Your task to perform on an android device: delete a single message in the gmail app Image 0: 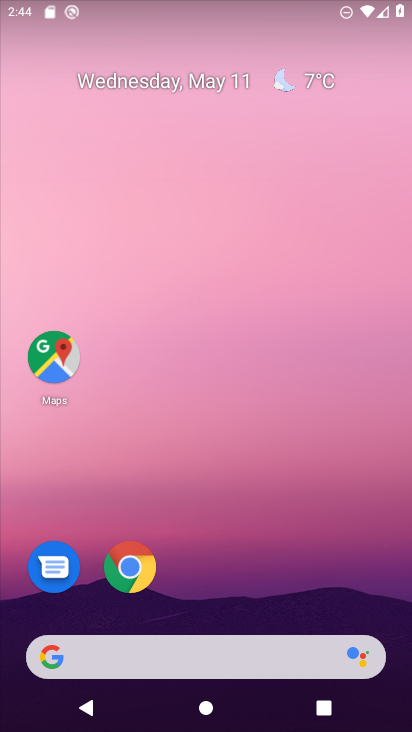
Step 0: drag from (311, 552) to (296, 248)
Your task to perform on an android device: delete a single message in the gmail app Image 1: 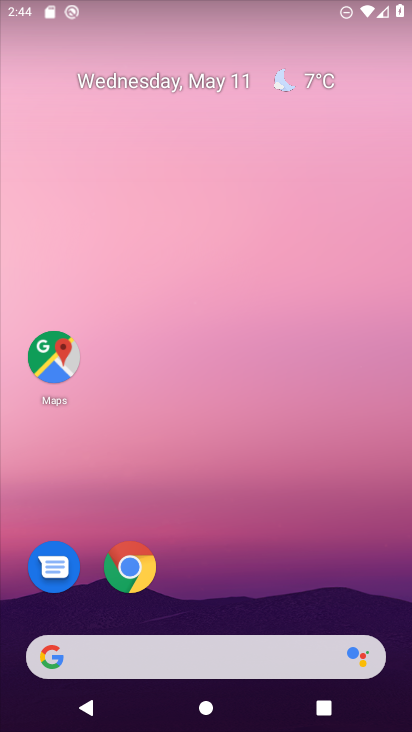
Step 1: drag from (377, 612) to (336, 204)
Your task to perform on an android device: delete a single message in the gmail app Image 2: 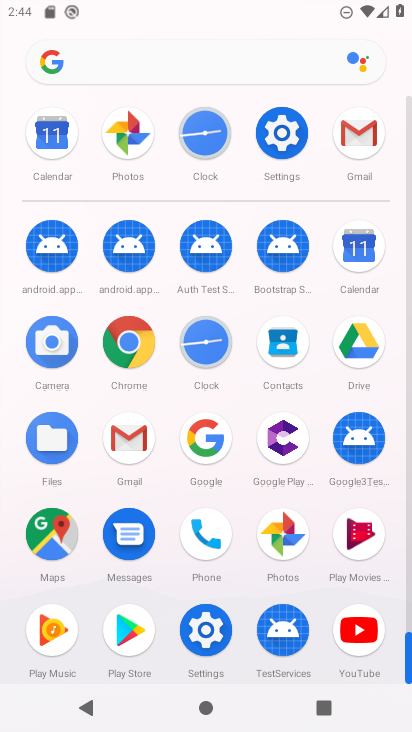
Step 2: click (120, 446)
Your task to perform on an android device: delete a single message in the gmail app Image 3: 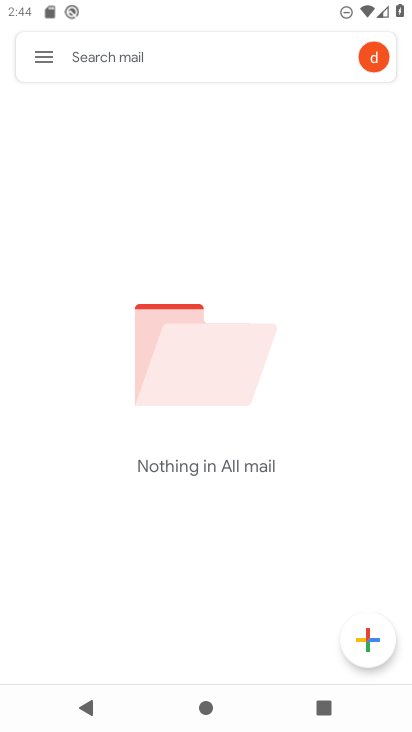
Step 3: click (39, 64)
Your task to perform on an android device: delete a single message in the gmail app Image 4: 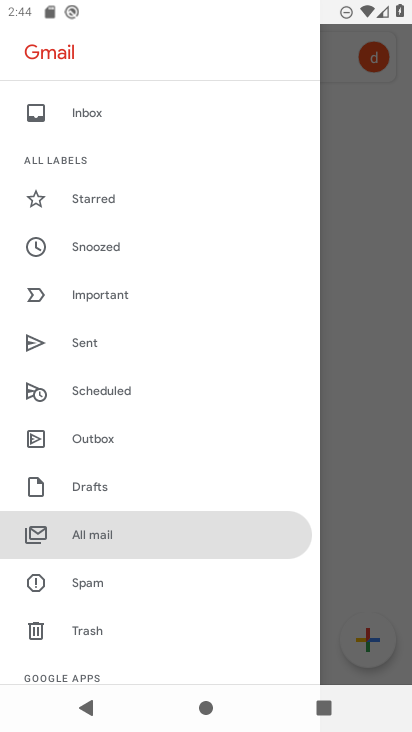
Step 4: task complete